Your task to perform on an android device: Open the calendar app, open the side menu, and click the "Day" option Image 0: 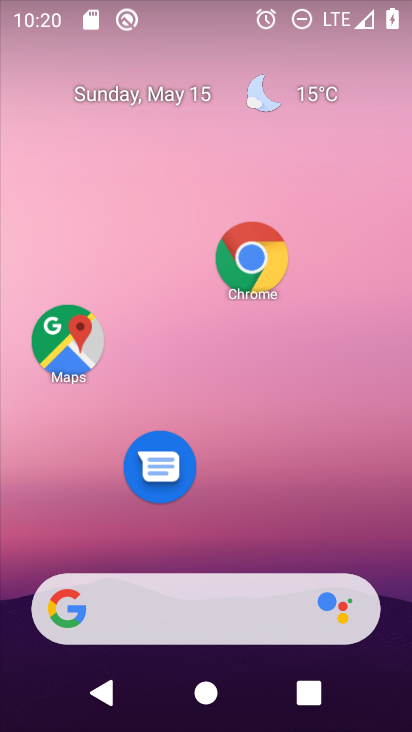
Step 0: click (114, 106)
Your task to perform on an android device: Open the calendar app, open the side menu, and click the "Day" option Image 1: 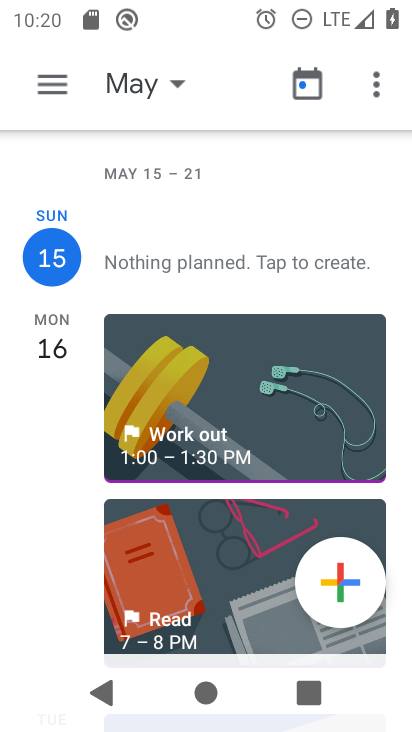
Step 1: click (45, 88)
Your task to perform on an android device: Open the calendar app, open the side menu, and click the "Day" option Image 2: 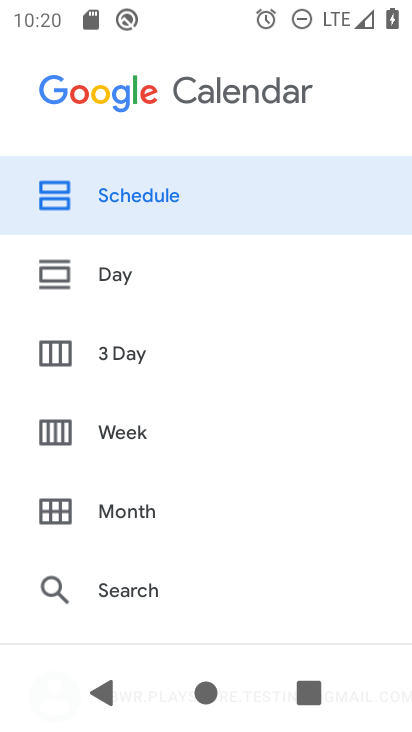
Step 2: click (198, 272)
Your task to perform on an android device: Open the calendar app, open the side menu, and click the "Day" option Image 3: 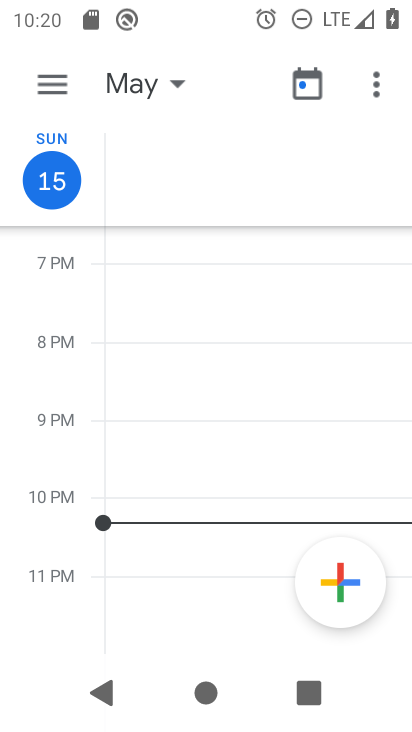
Step 3: task complete